Your task to perform on an android device: toggle priority inbox in the gmail app Image 0: 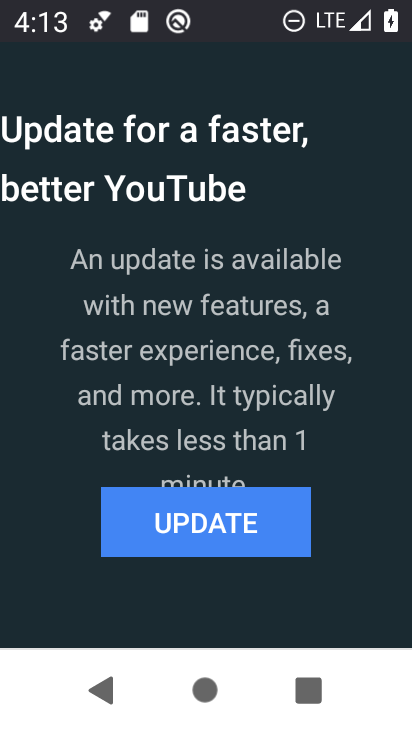
Step 0: press home button
Your task to perform on an android device: toggle priority inbox in the gmail app Image 1: 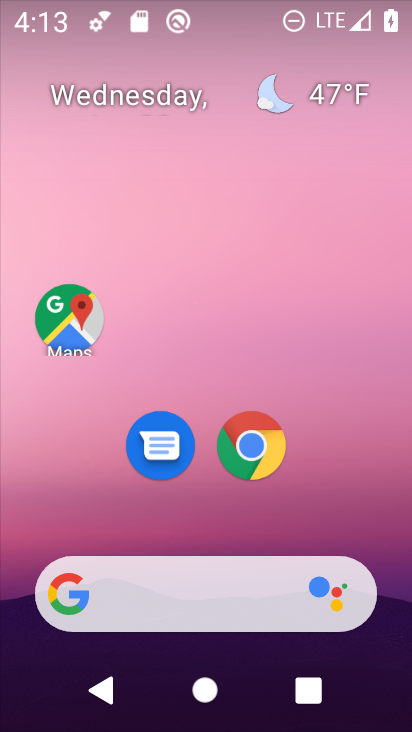
Step 1: drag from (283, 514) to (377, 36)
Your task to perform on an android device: toggle priority inbox in the gmail app Image 2: 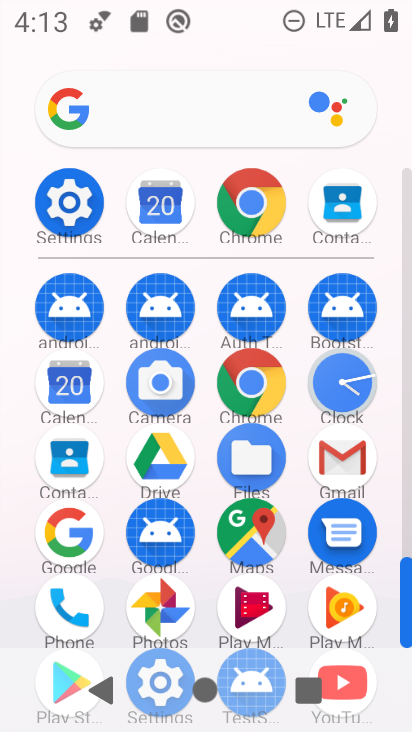
Step 2: click (342, 458)
Your task to perform on an android device: toggle priority inbox in the gmail app Image 3: 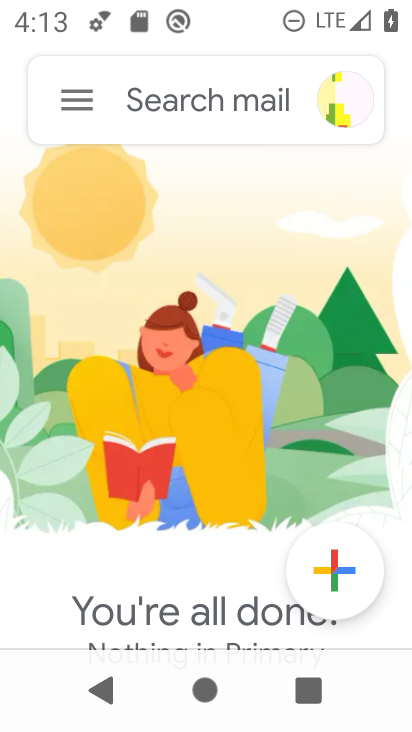
Step 3: click (83, 104)
Your task to perform on an android device: toggle priority inbox in the gmail app Image 4: 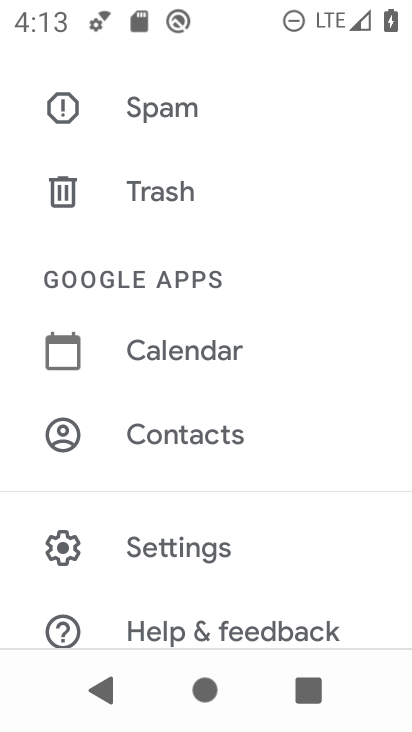
Step 4: click (199, 555)
Your task to perform on an android device: toggle priority inbox in the gmail app Image 5: 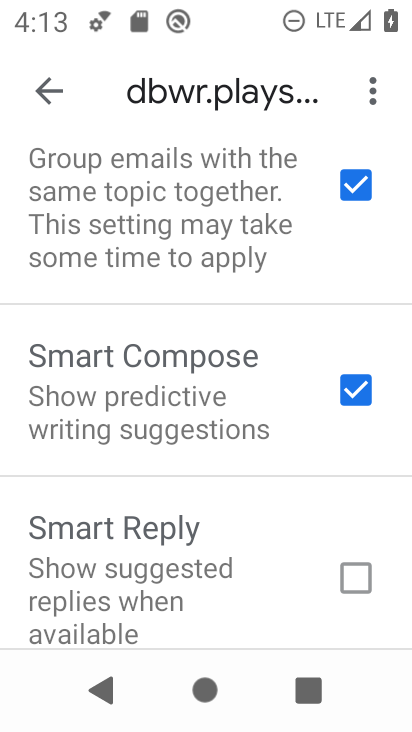
Step 5: drag from (220, 276) to (209, 530)
Your task to perform on an android device: toggle priority inbox in the gmail app Image 6: 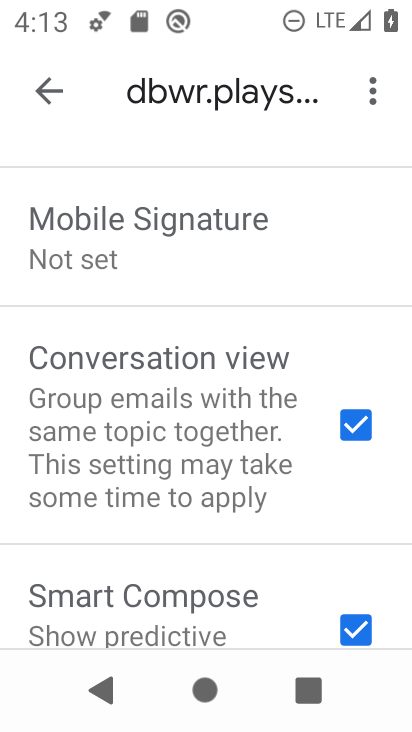
Step 6: drag from (238, 279) to (196, 477)
Your task to perform on an android device: toggle priority inbox in the gmail app Image 7: 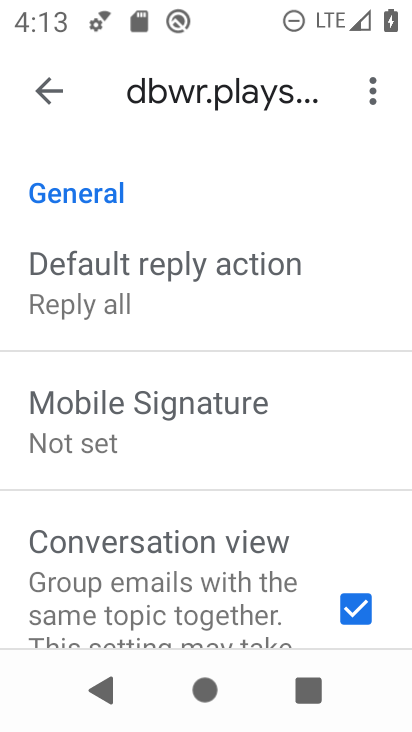
Step 7: drag from (238, 232) to (209, 414)
Your task to perform on an android device: toggle priority inbox in the gmail app Image 8: 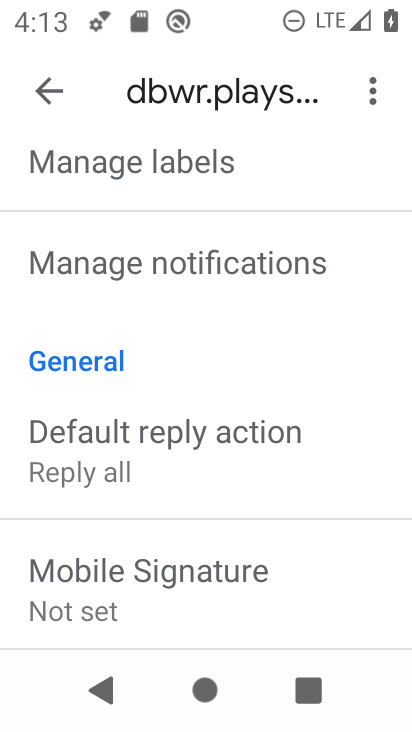
Step 8: drag from (211, 235) to (177, 416)
Your task to perform on an android device: toggle priority inbox in the gmail app Image 9: 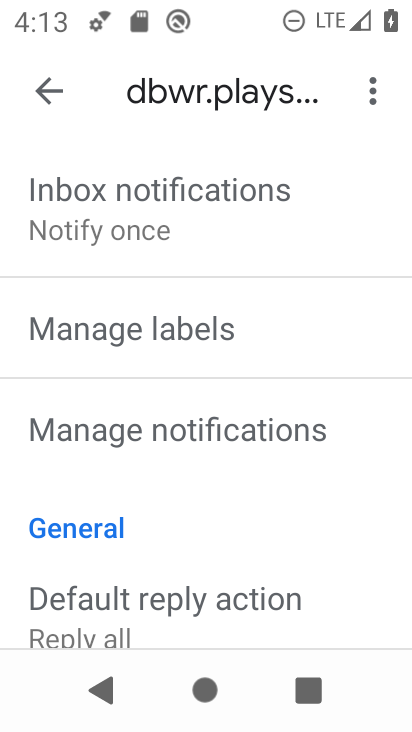
Step 9: drag from (212, 258) to (213, 428)
Your task to perform on an android device: toggle priority inbox in the gmail app Image 10: 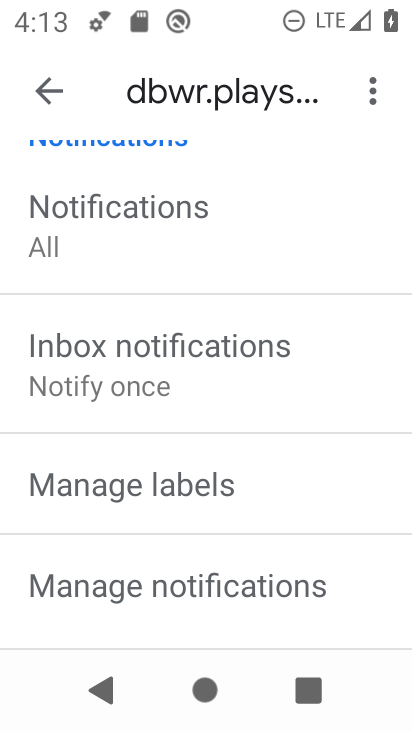
Step 10: drag from (231, 252) to (244, 408)
Your task to perform on an android device: toggle priority inbox in the gmail app Image 11: 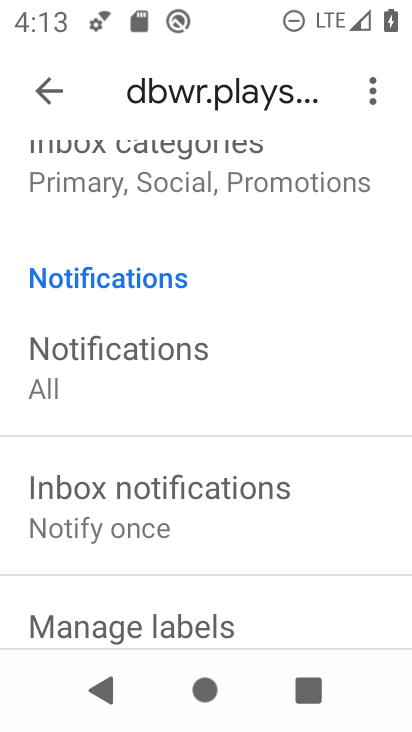
Step 11: drag from (224, 245) to (251, 473)
Your task to perform on an android device: toggle priority inbox in the gmail app Image 12: 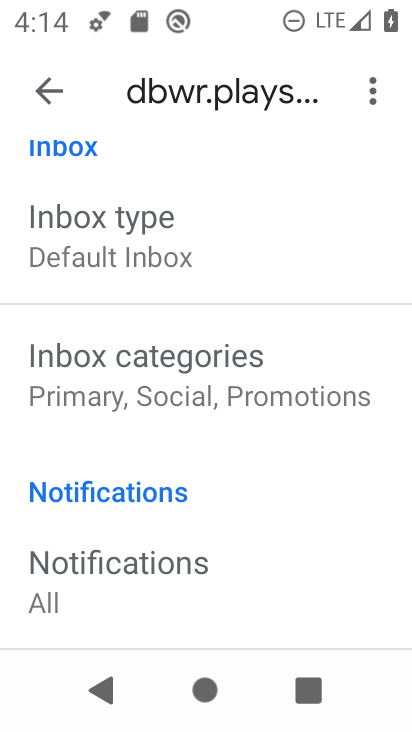
Step 12: click (142, 263)
Your task to perform on an android device: toggle priority inbox in the gmail app Image 13: 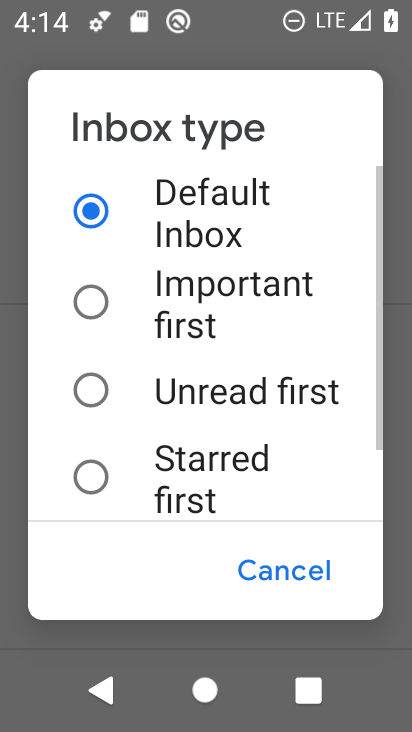
Step 13: drag from (135, 459) to (135, 181)
Your task to perform on an android device: toggle priority inbox in the gmail app Image 14: 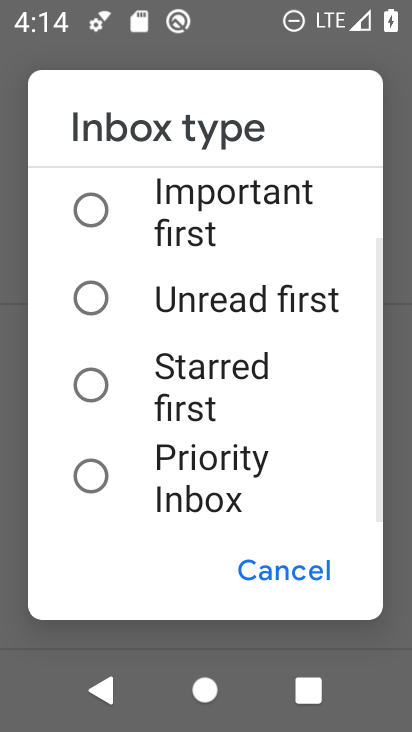
Step 14: click (103, 472)
Your task to perform on an android device: toggle priority inbox in the gmail app Image 15: 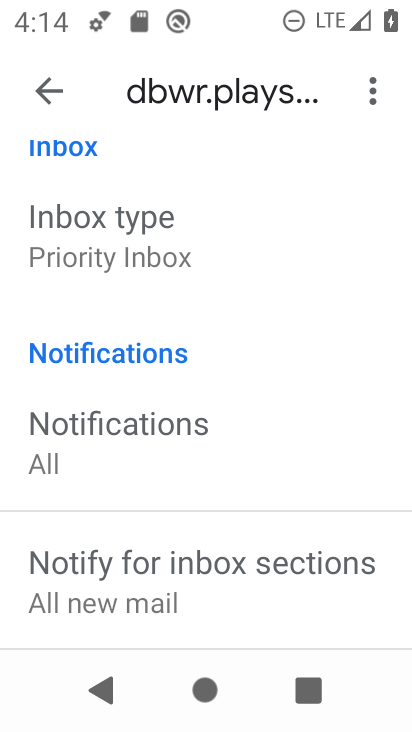
Step 15: task complete